Your task to perform on an android device: add a contact Image 0: 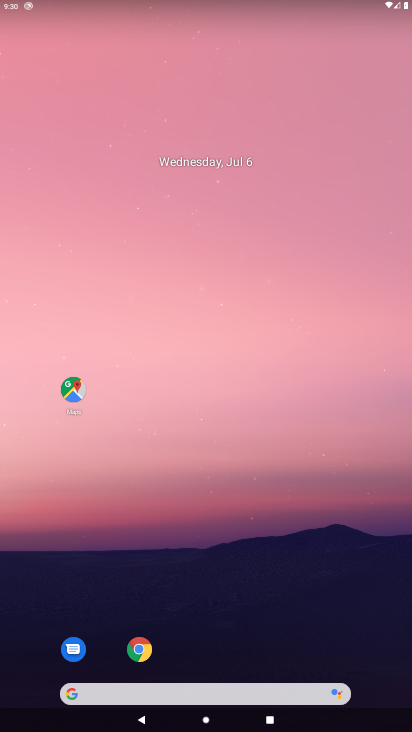
Step 0: drag from (222, 655) to (202, 106)
Your task to perform on an android device: add a contact Image 1: 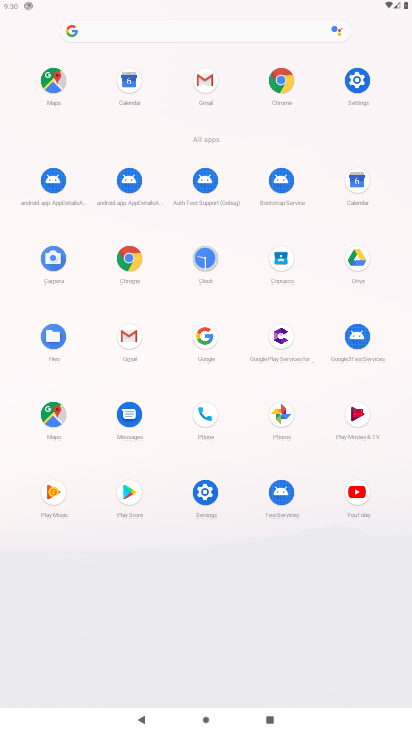
Step 1: click (278, 253)
Your task to perform on an android device: add a contact Image 2: 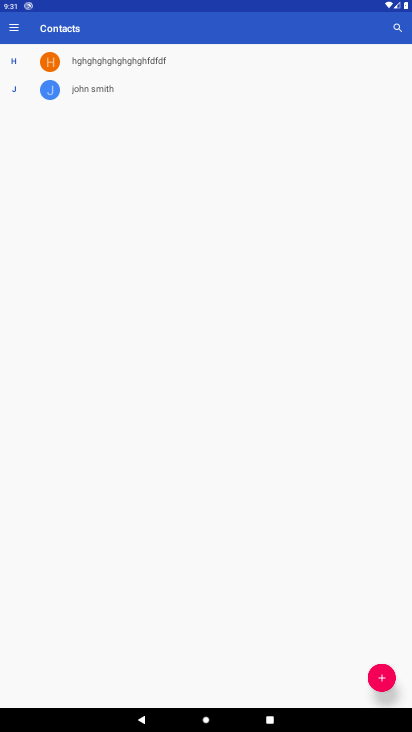
Step 2: click (382, 673)
Your task to perform on an android device: add a contact Image 3: 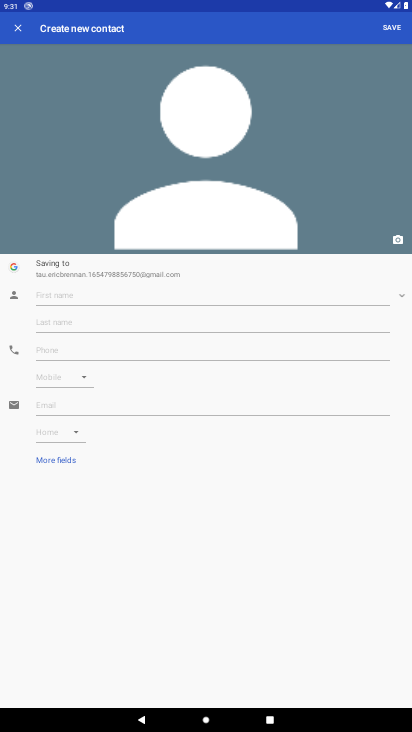
Step 3: click (52, 287)
Your task to perform on an android device: add a contact Image 4: 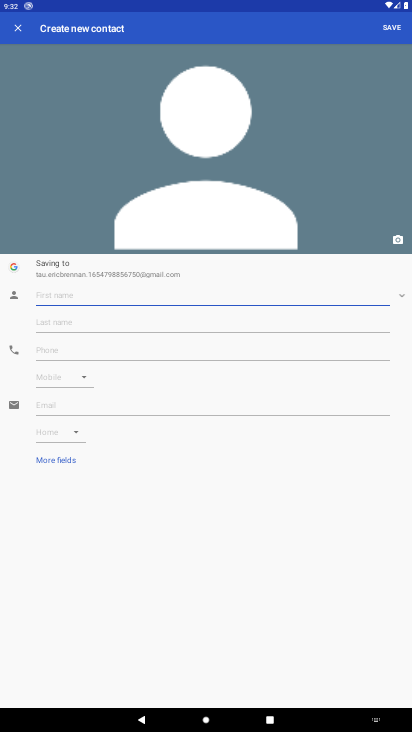
Step 4: type "fdfmb"
Your task to perform on an android device: add a contact Image 5: 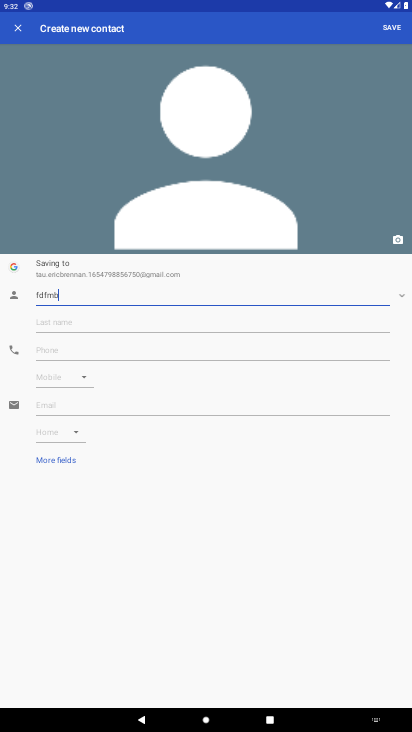
Step 5: click (390, 27)
Your task to perform on an android device: add a contact Image 6: 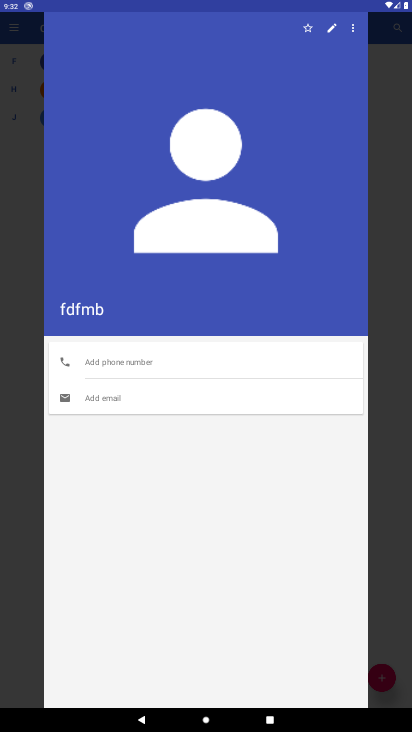
Step 6: task complete